Your task to perform on an android device: Show me productivity apps on the Play Store Image 0: 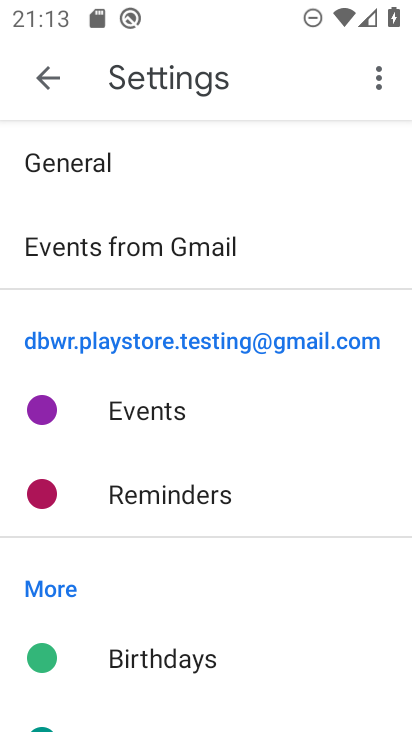
Step 0: press home button
Your task to perform on an android device: Show me productivity apps on the Play Store Image 1: 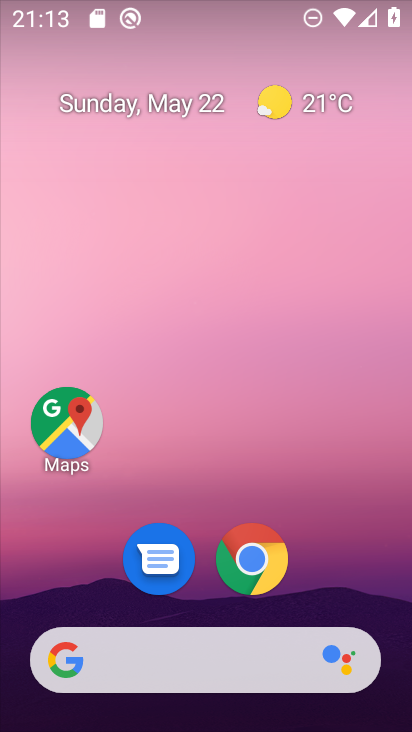
Step 1: drag from (294, 677) to (286, 147)
Your task to perform on an android device: Show me productivity apps on the Play Store Image 2: 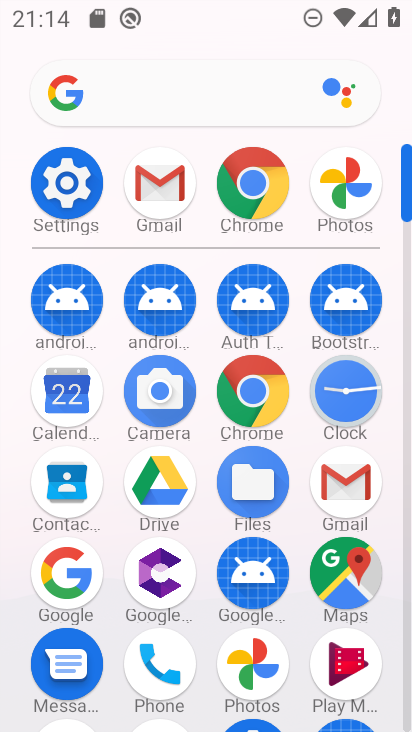
Step 2: drag from (107, 543) to (124, 306)
Your task to perform on an android device: Show me productivity apps on the Play Store Image 3: 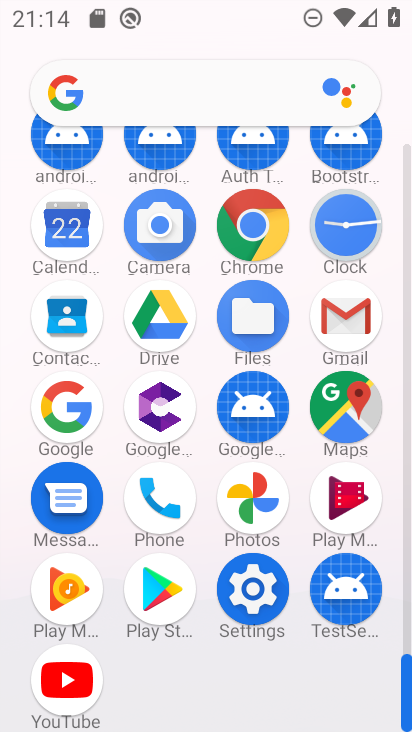
Step 3: click (135, 584)
Your task to perform on an android device: Show me productivity apps on the Play Store Image 4: 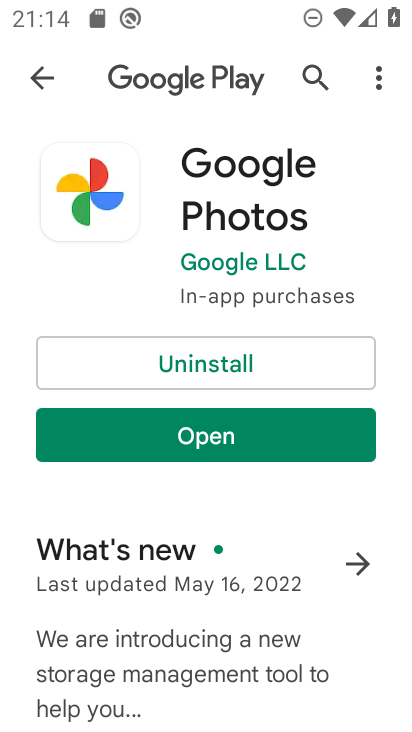
Step 4: click (313, 71)
Your task to perform on an android device: Show me productivity apps on the Play Store Image 5: 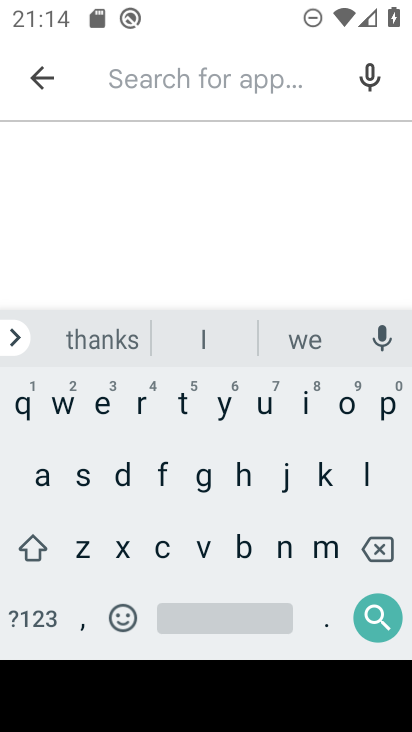
Step 5: click (387, 409)
Your task to perform on an android device: Show me productivity apps on the Play Store Image 6: 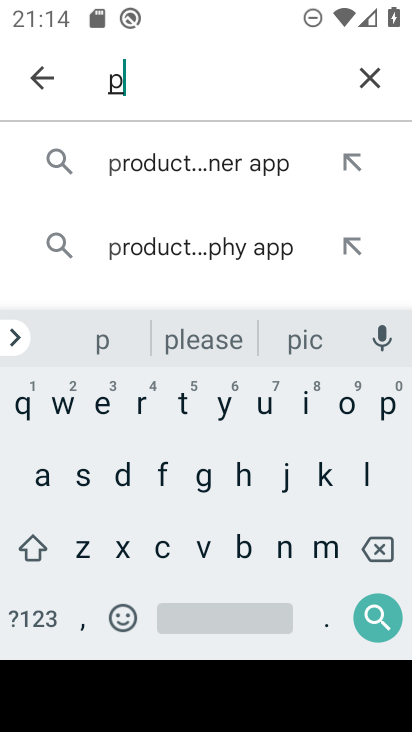
Step 6: click (140, 407)
Your task to perform on an android device: Show me productivity apps on the Play Store Image 7: 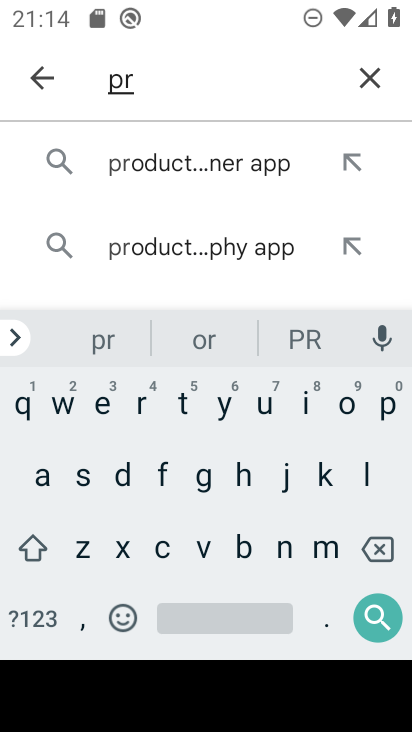
Step 7: click (342, 407)
Your task to perform on an android device: Show me productivity apps on the Play Store Image 8: 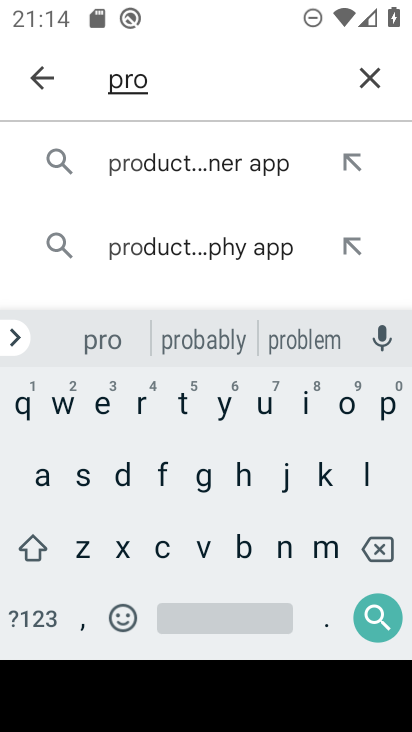
Step 8: click (114, 472)
Your task to perform on an android device: Show me productivity apps on the Play Store Image 9: 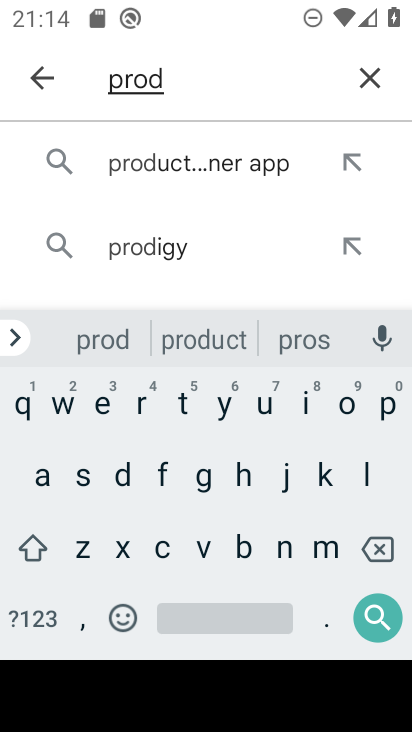
Step 9: click (274, 410)
Your task to perform on an android device: Show me productivity apps on the Play Store Image 10: 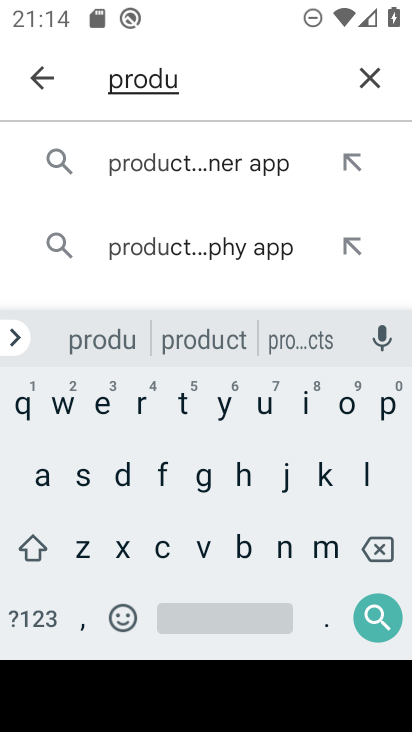
Step 10: click (155, 552)
Your task to perform on an android device: Show me productivity apps on the Play Store Image 11: 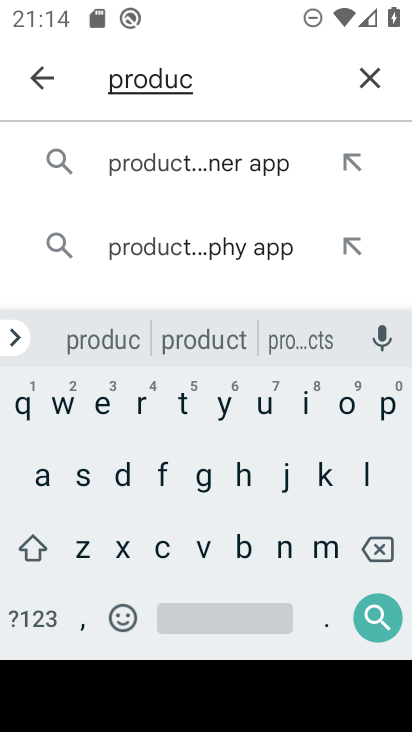
Step 11: click (187, 400)
Your task to perform on an android device: Show me productivity apps on the Play Store Image 12: 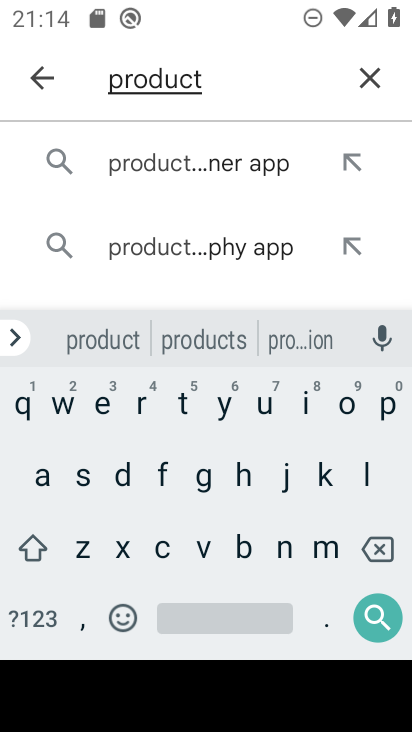
Step 12: click (308, 400)
Your task to perform on an android device: Show me productivity apps on the Play Store Image 13: 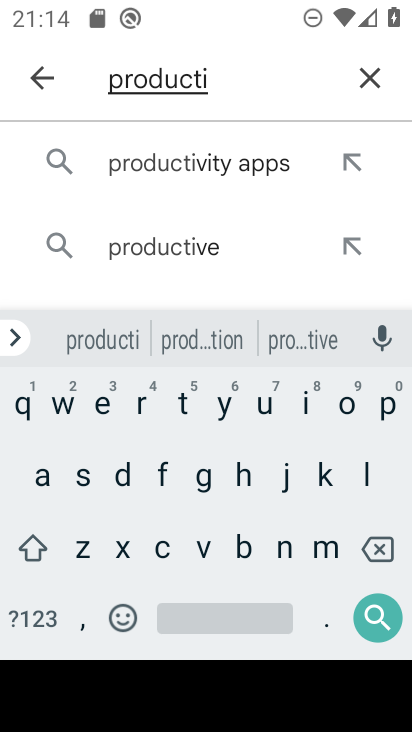
Step 13: click (207, 545)
Your task to perform on an android device: Show me productivity apps on the Play Store Image 14: 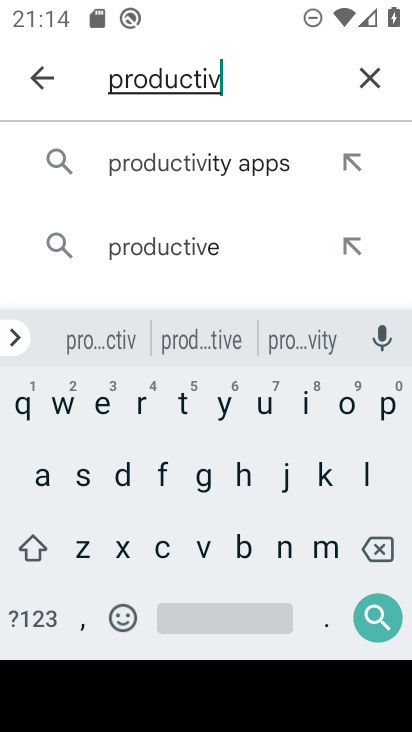
Step 14: click (310, 349)
Your task to perform on an android device: Show me productivity apps on the Play Store Image 15: 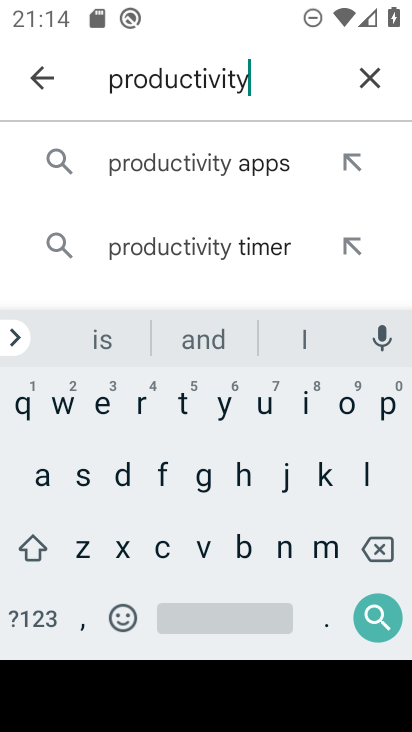
Step 15: click (34, 478)
Your task to perform on an android device: Show me productivity apps on the Play Store Image 16: 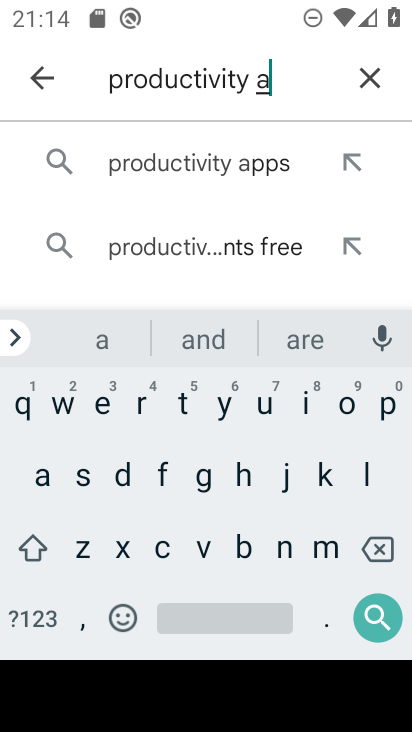
Step 16: click (215, 169)
Your task to perform on an android device: Show me productivity apps on the Play Store Image 17: 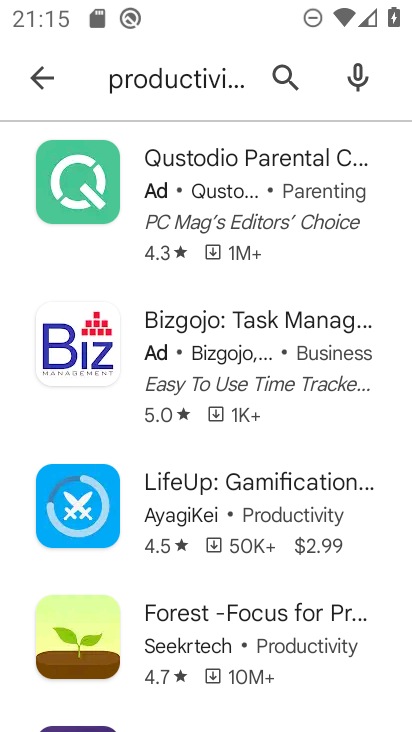
Step 17: task complete